Your task to perform on an android device: turn on bluetooth scan Image 0: 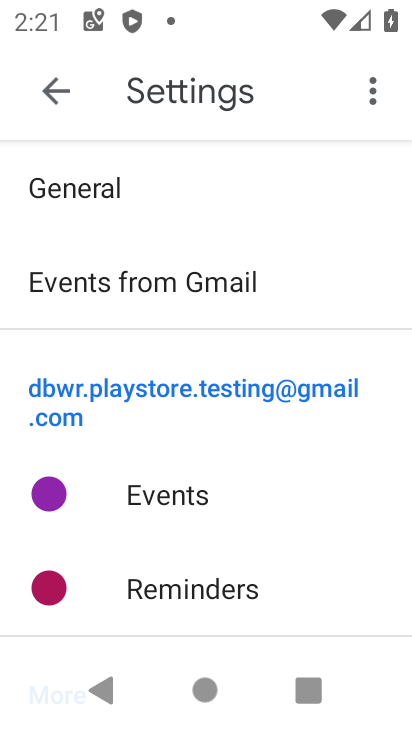
Step 0: click (52, 98)
Your task to perform on an android device: turn on bluetooth scan Image 1: 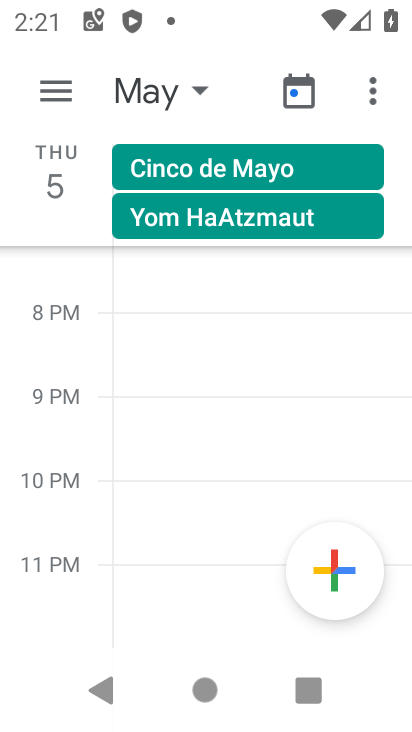
Step 1: press home button
Your task to perform on an android device: turn on bluetooth scan Image 2: 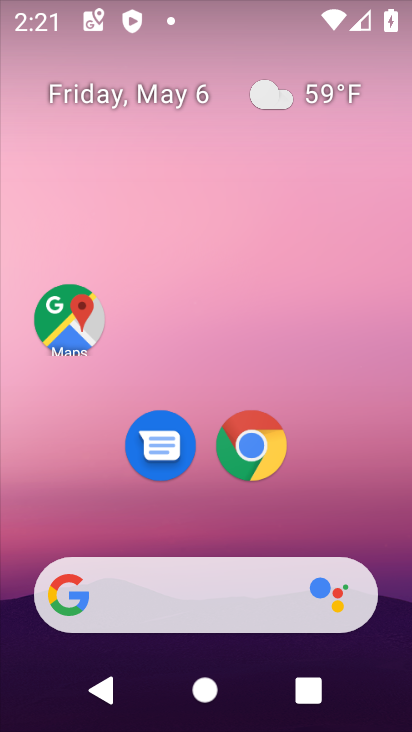
Step 2: press back button
Your task to perform on an android device: turn on bluetooth scan Image 3: 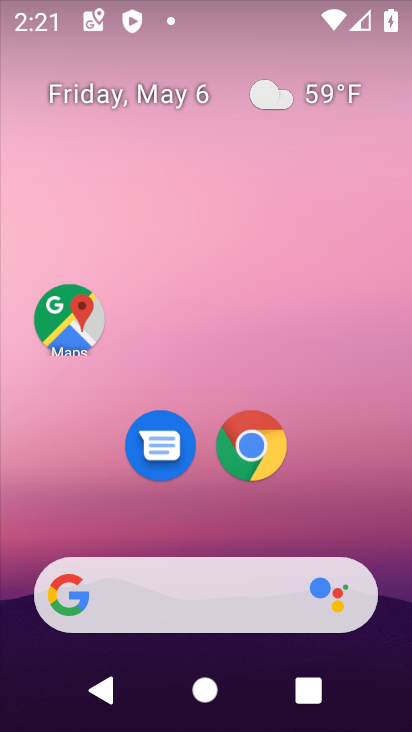
Step 3: drag from (367, 536) to (188, 2)
Your task to perform on an android device: turn on bluetooth scan Image 4: 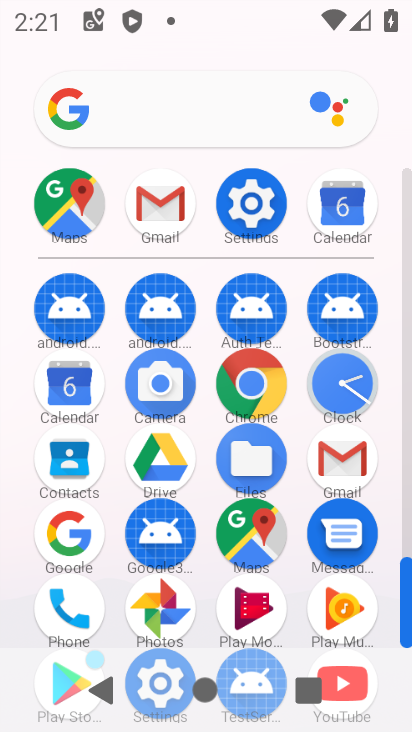
Step 4: click (246, 217)
Your task to perform on an android device: turn on bluetooth scan Image 5: 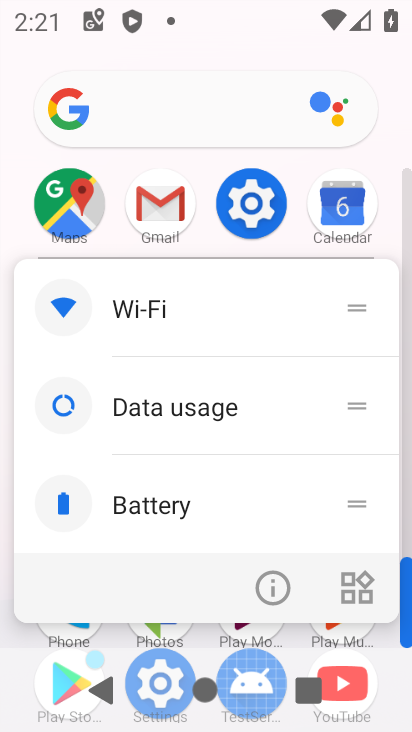
Step 5: click (254, 214)
Your task to perform on an android device: turn on bluetooth scan Image 6: 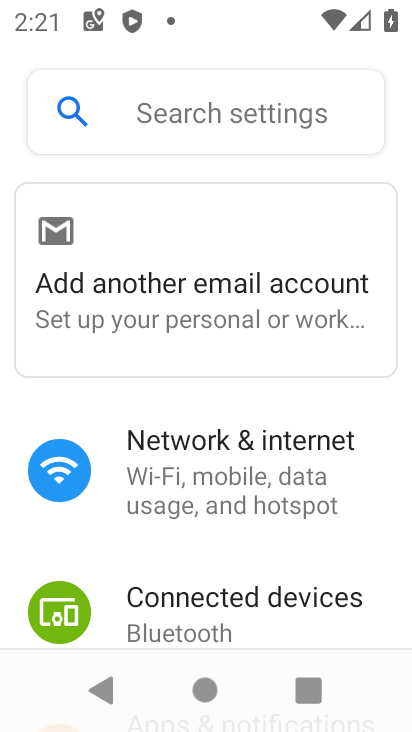
Step 6: drag from (250, 540) to (196, 218)
Your task to perform on an android device: turn on bluetooth scan Image 7: 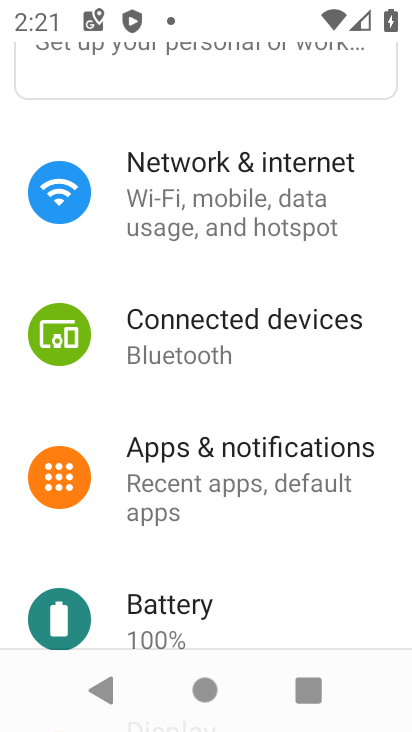
Step 7: drag from (223, 499) to (208, 149)
Your task to perform on an android device: turn on bluetooth scan Image 8: 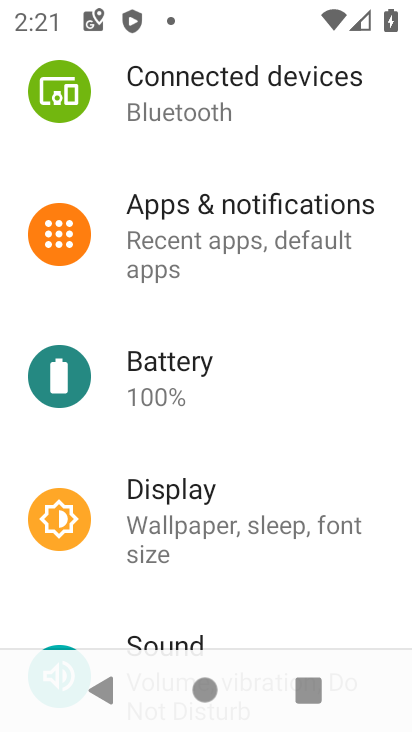
Step 8: drag from (205, 572) to (172, 230)
Your task to perform on an android device: turn on bluetooth scan Image 9: 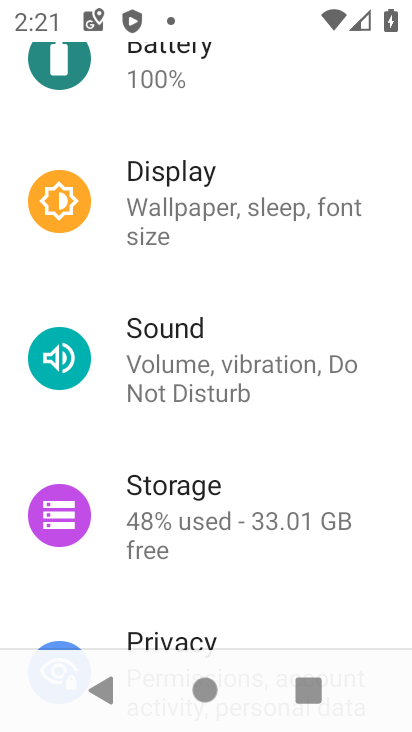
Step 9: drag from (190, 541) to (184, 271)
Your task to perform on an android device: turn on bluetooth scan Image 10: 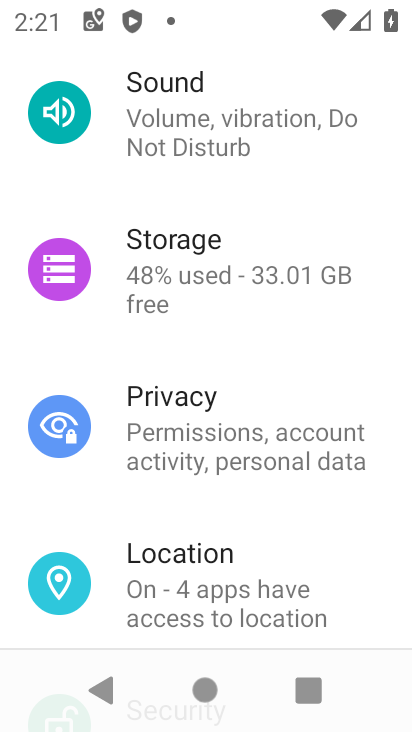
Step 10: click (205, 574)
Your task to perform on an android device: turn on bluetooth scan Image 11: 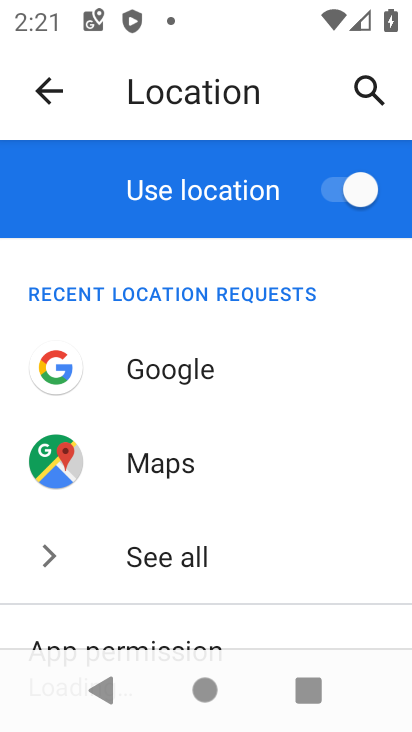
Step 11: drag from (253, 555) to (215, 305)
Your task to perform on an android device: turn on bluetooth scan Image 12: 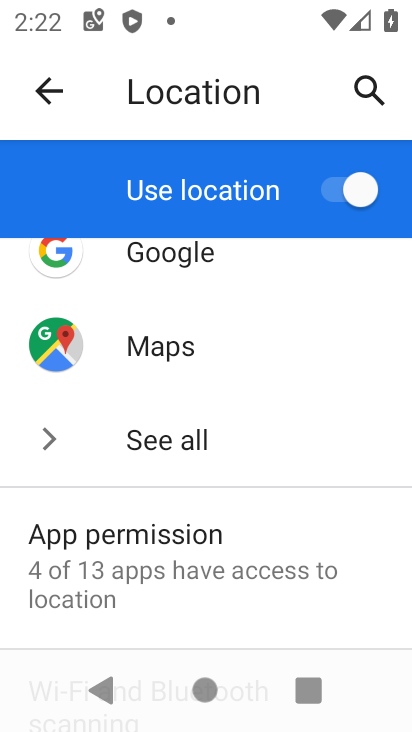
Step 12: drag from (214, 513) to (193, 260)
Your task to perform on an android device: turn on bluetooth scan Image 13: 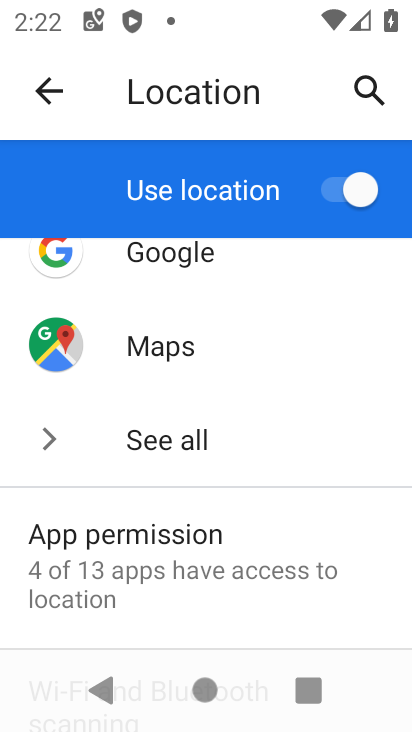
Step 13: drag from (218, 449) to (222, 283)
Your task to perform on an android device: turn on bluetooth scan Image 14: 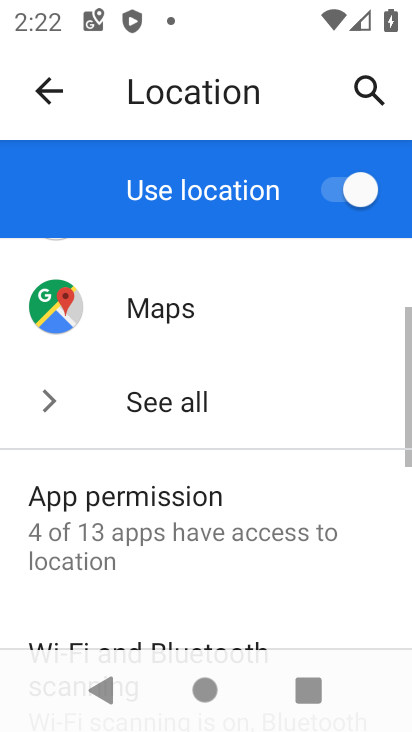
Step 14: drag from (281, 573) to (283, 223)
Your task to perform on an android device: turn on bluetooth scan Image 15: 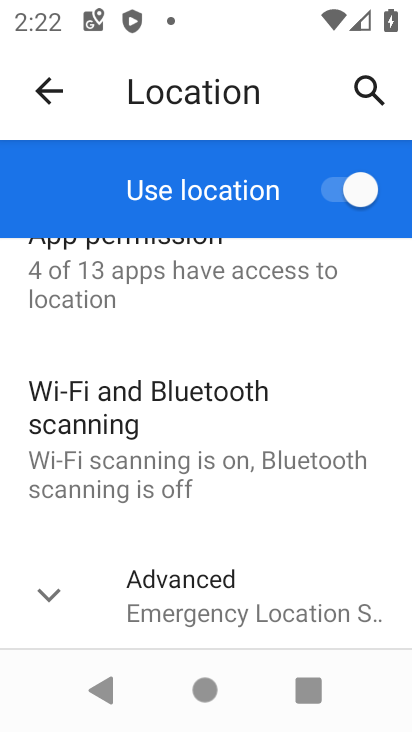
Step 15: drag from (138, 586) to (142, 266)
Your task to perform on an android device: turn on bluetooth scan Image 16: 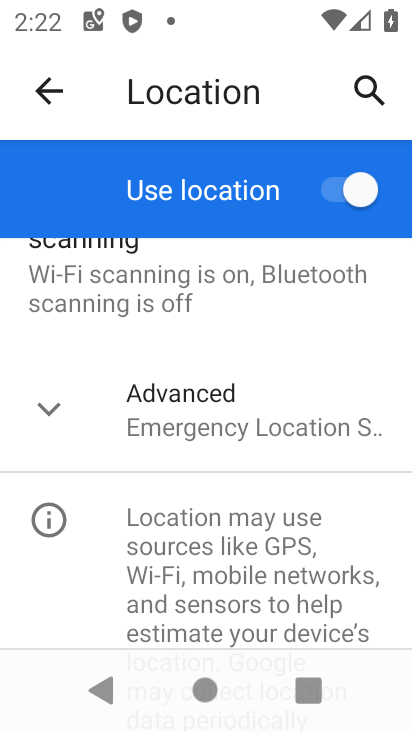
Step 16: click (122, 287)
Your task to perform on an android device: turn on bluetooth scan Image 17: 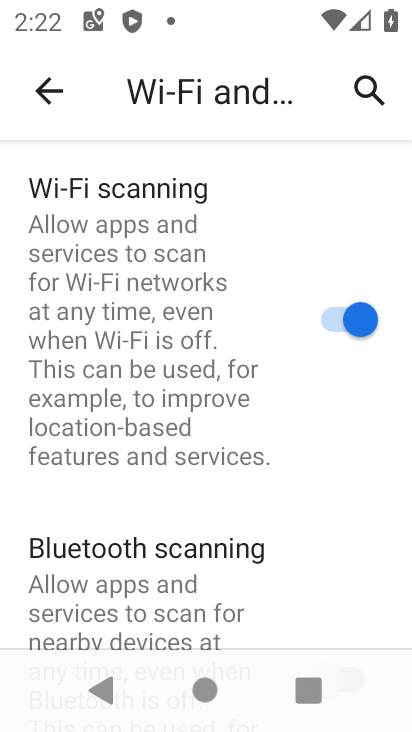
Step 17: drag from (228, 365) to (181, 165)
Your task to perform on an android device: turn on bluetooth scan Image 18: 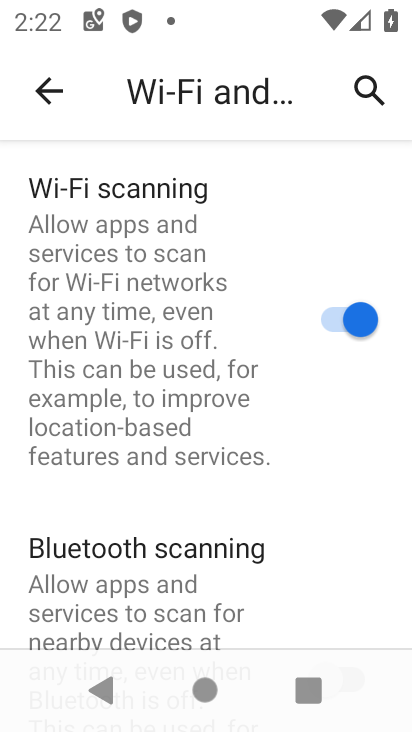
Step 18: drag from (344, 573) to (266, 212)
Your task to perform on an android device: turn on bluetooth scan Image 19: 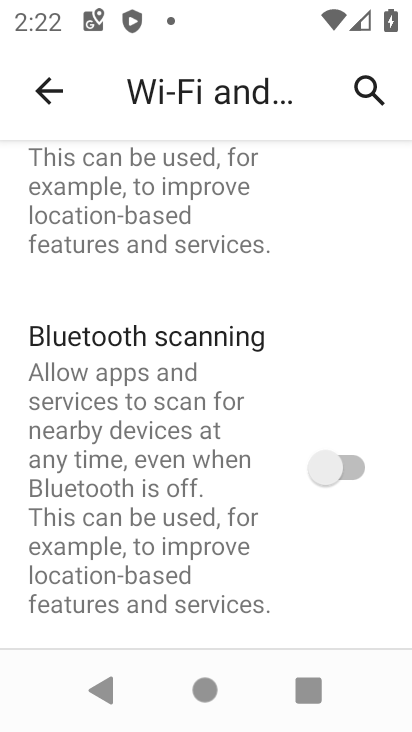
Step 19: click (327, 468)
Your task to perform on an android device: turn on bluetooth scan Image 20: 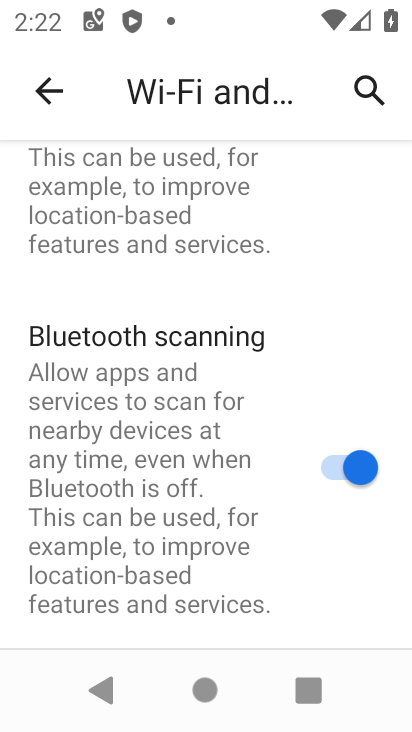
Step 20: task complete